Your task to perform on an android device: see tabs open on other devices in the chrome app Image 0: 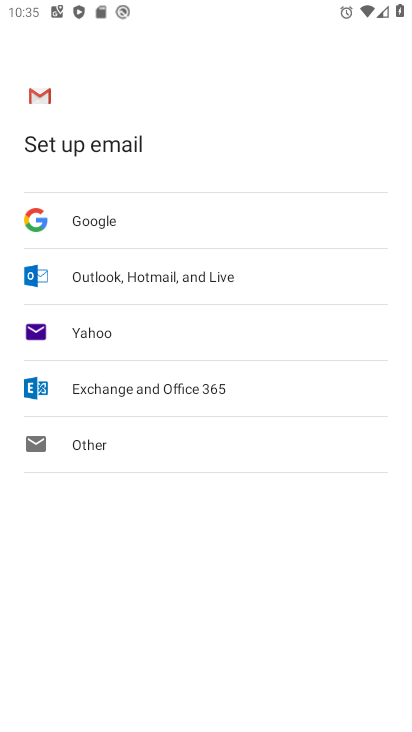
Step 0: press home button
Your task to perform on an android device: see tabs open on other devices in the chrome app Image 1: 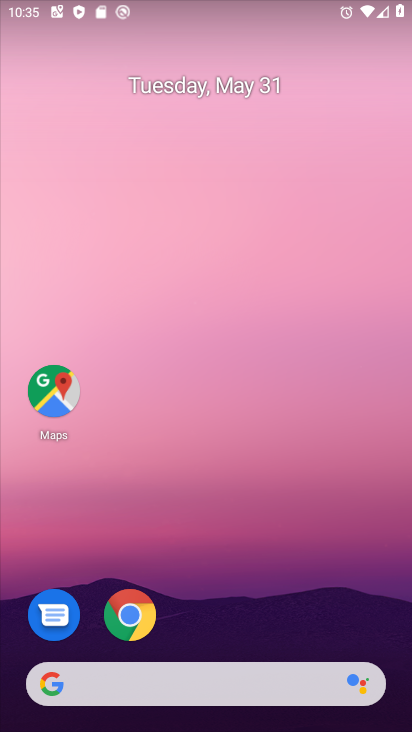
Step 1: drag from (320, 470) to (398, 34)
Your task to perform on an android device: see tabs open on other devices in the chrome app Image 2: 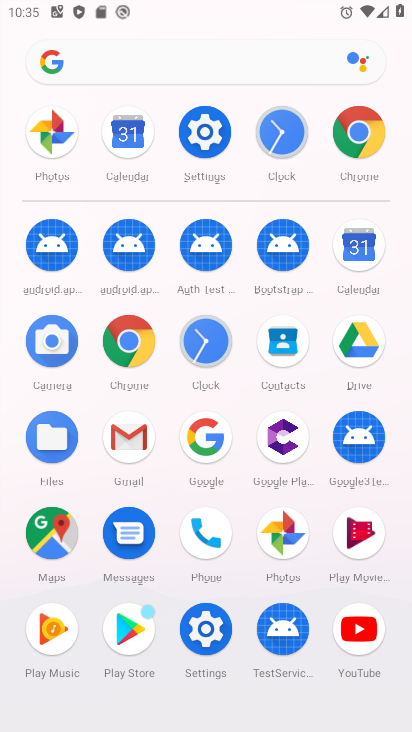
Step 2: click (335, 144)
Your task to perform on an android device: see tabs open on other devices in the chrome app Image 3: 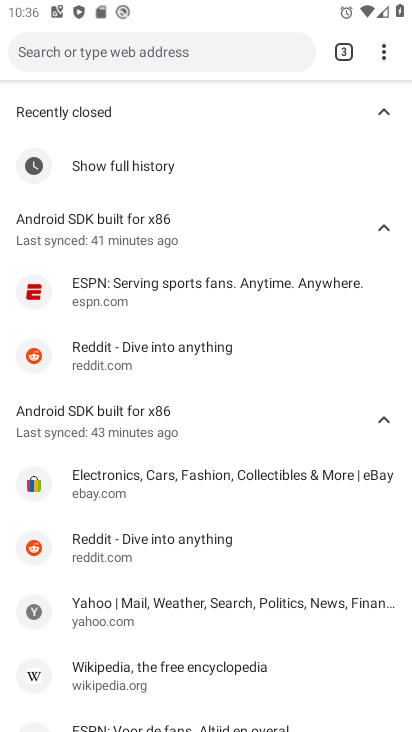
Step 3: task complete